Your task to perform on an android device: open app "The Home Depot" Image 0: 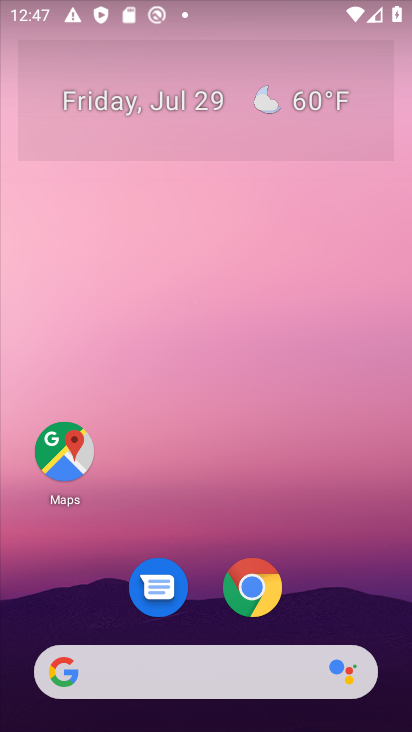
Step 0: drag from (246, 707) to (334, 351)
Your task to perform on an android device: open app "The Home Depot" Image 1: 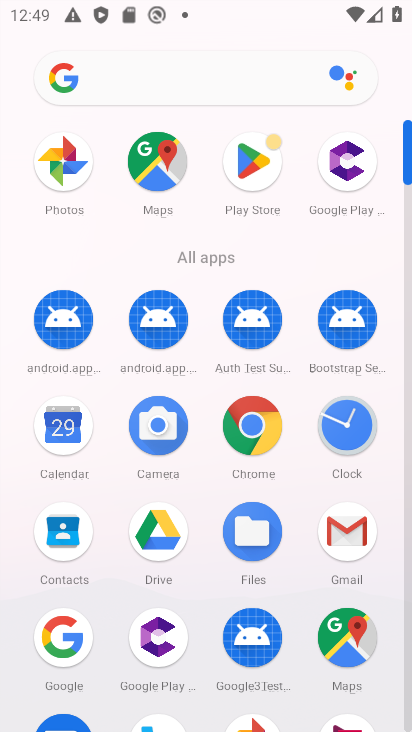
Step 1: click (234, 170)
Your task to perform on an android device: open app "The Home Depot" Image 2: 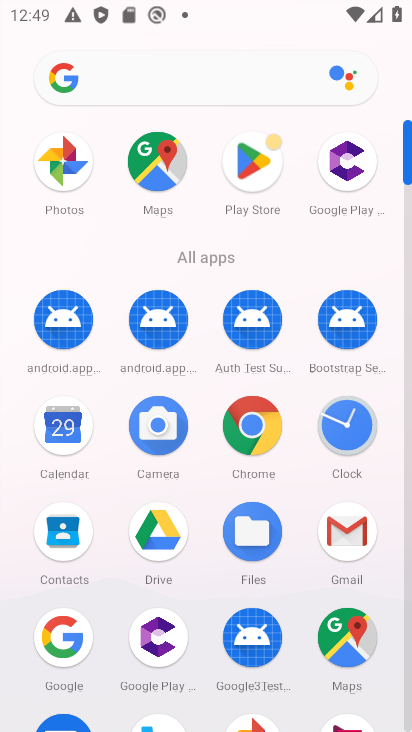
Step 2: click (234, 170)
Your task to perform on an android device: open app "The Home Depot" Image 3: 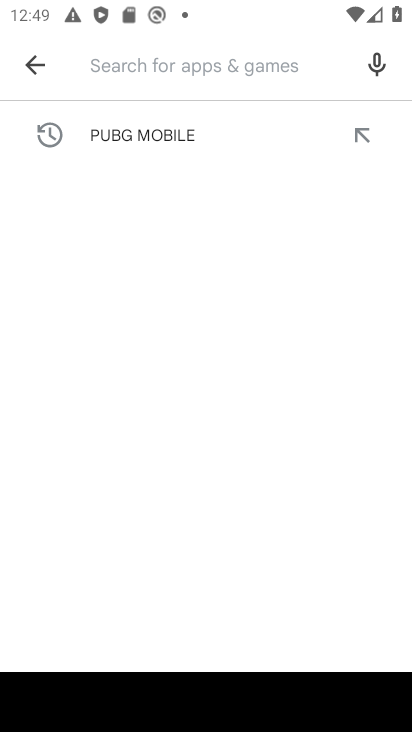
Step 3: type "The Home Depot"
Your task to perform on an android device: open app "The Home Depot" Image 4: 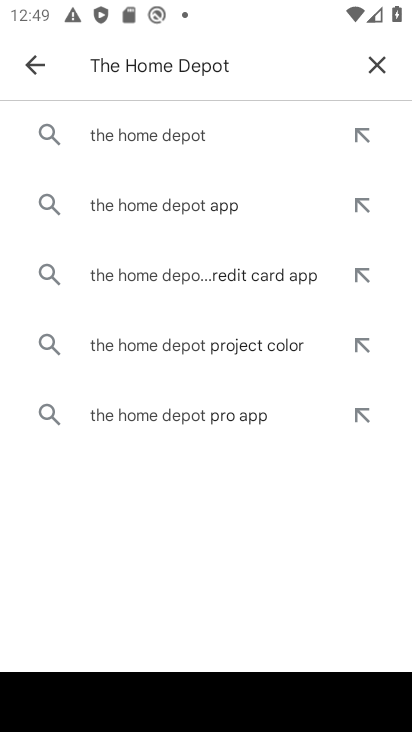
Step 4: click (186, 123)
Your task to perform on an android device: open app "The Home Depot" Image 5: 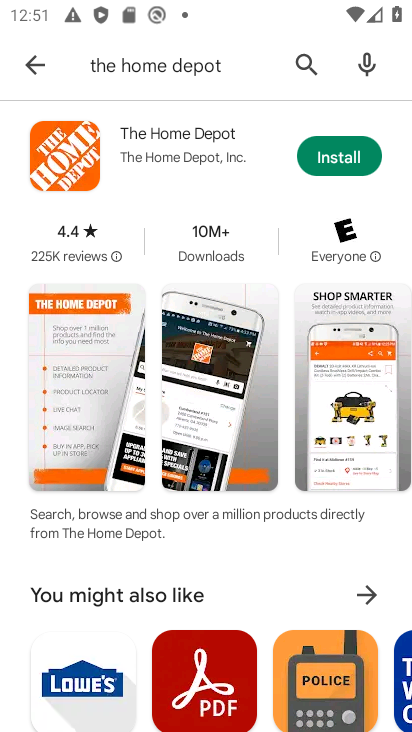
Step 5: task complete